Your task to perform on an android device: Is it going to rain tomorrow? Image 0: 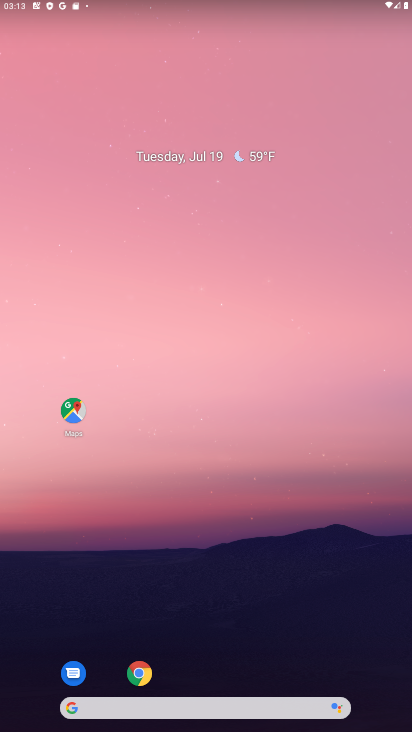
Step 0: press home button
Your task to perform on an android device: Is it going to rain tomorrow? Image 1: 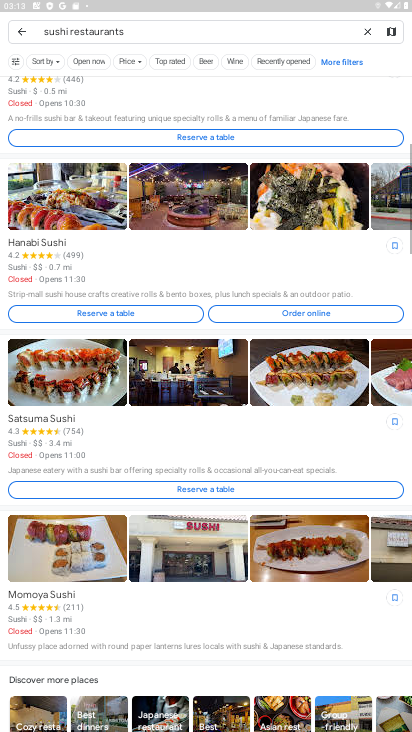
Step 1: drag from (220, 679) to (303, 99)
Your task to perform on an android device: Is it going to rain tomorrow? Image 2: 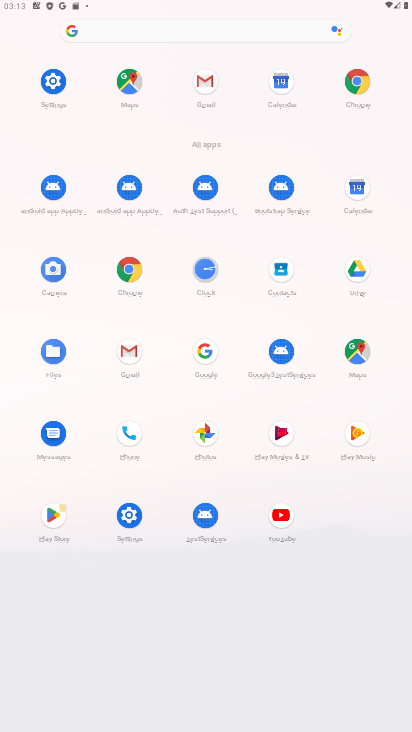
Step 2: press home button
Your task to perform on an android device: Is it going to rain tomorrow? Image 3: 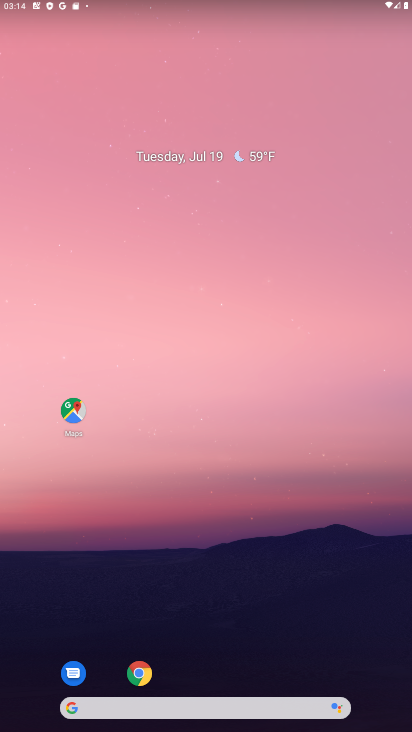
Step 3: click (184, 704)
Your task to perform on an android device: Is it going to rain tomorrow? Image 4: 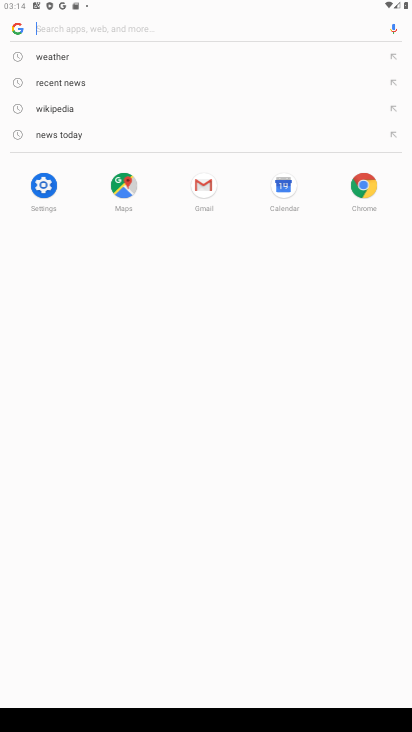
Step 4: click (81, 55)
Your task to perform on an android device: Is it going to rain tomorrow? Image 5: 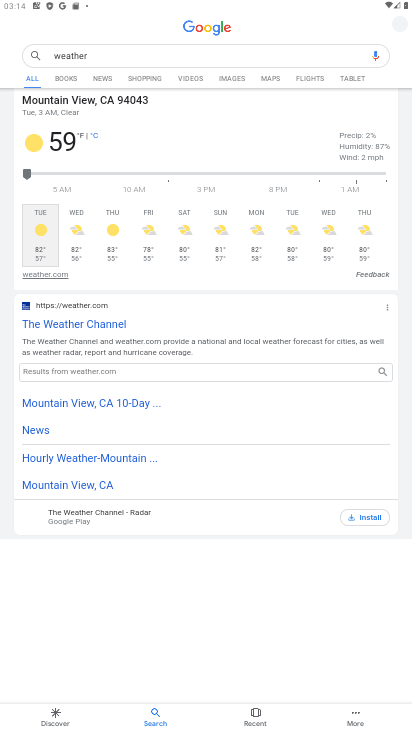
Step 5: click (76, 228)
Your task to perform on an android device: Is it going to rain tomorrow? Image 6: 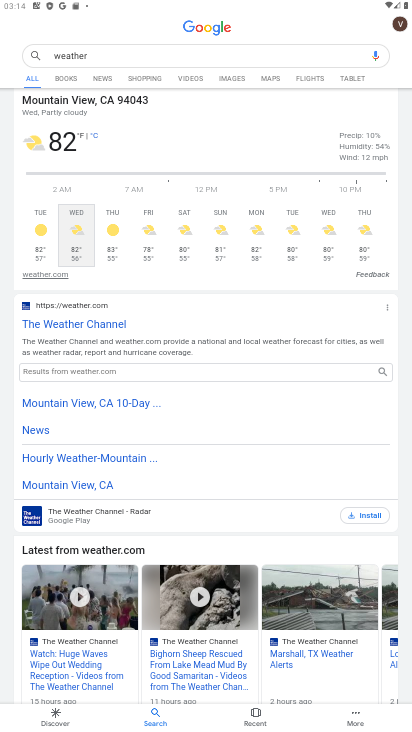
Step 6: task complete